Your task to perform on an android device: delete browsing data in the chrome app Image 0: 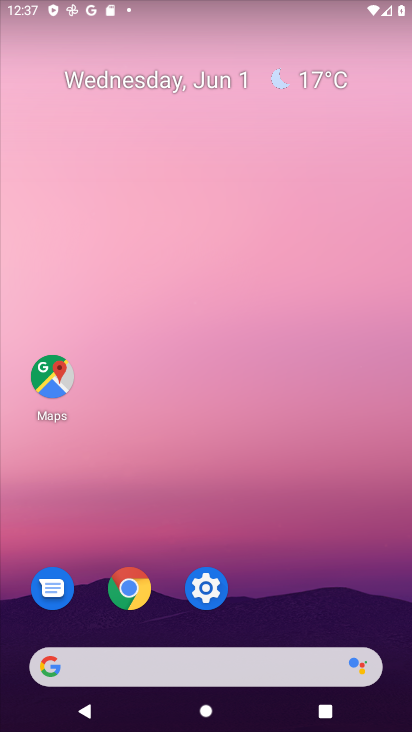
Step 0: drag from (233, 695) to (271, 115)
Your task to perform on an android device: delete browsing data in the chrome app Image 1: 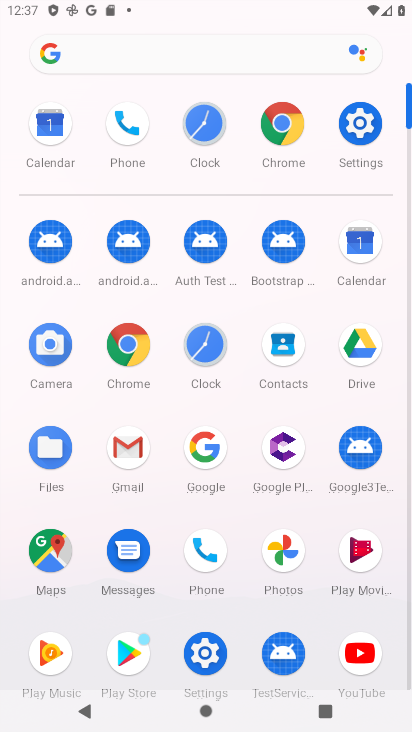
Step 1: click (127, 337)
Your task to perform on an android device: delete browsing data in the chrome app Image 2: 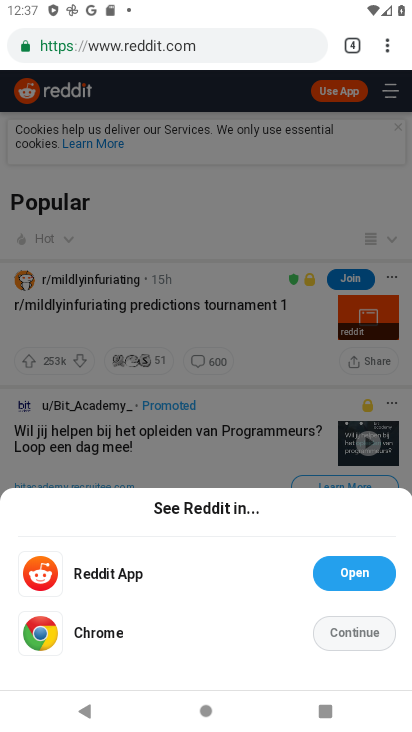
Step 2: click (390, 43)
Your task to perform on an android device: delete browsing data in the chrome app Image 3: 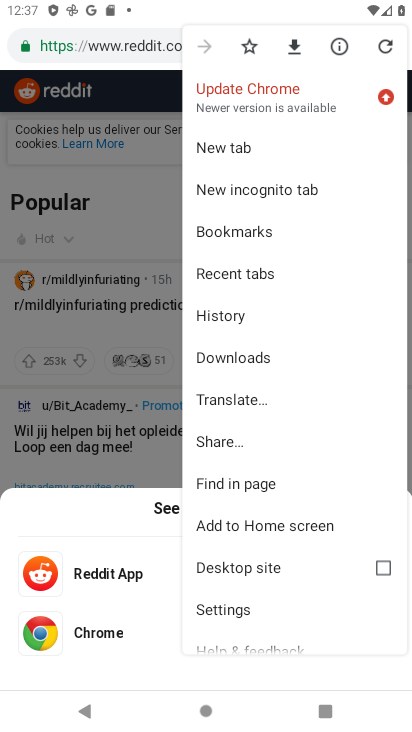
Step 3: click (238, 610)
Your task to perform on an android device: delete browsing data in the chrome app Image 4: 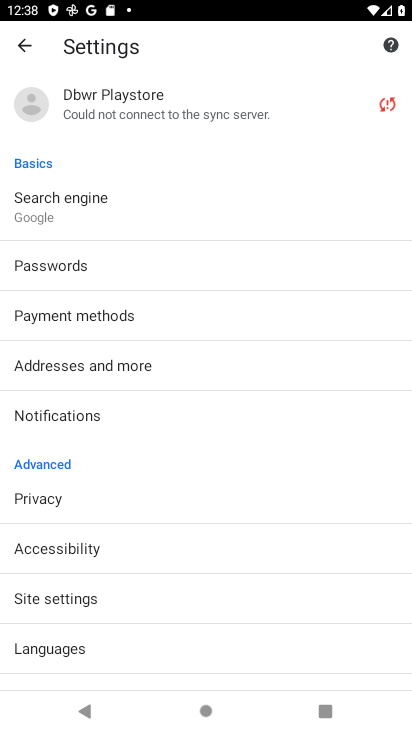
Step 4: click (74, 494)
Your task to perform on an android device: delete browsing data in the chrome app Image 5: 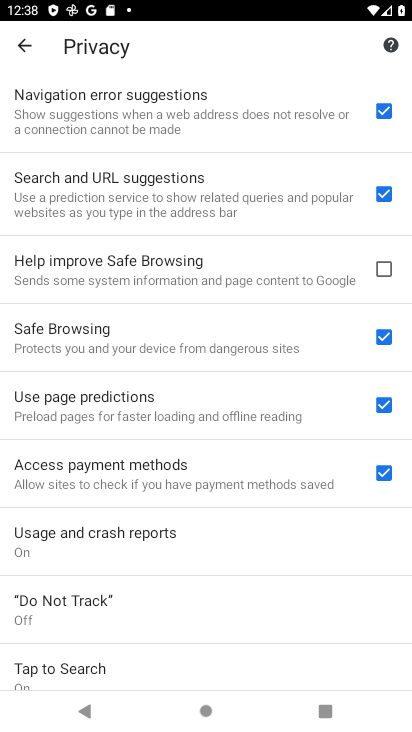
Step 5: drag from (185, 610) to (184, 210)
Your task to perform on an android device: delete browsing data in the chrome app Image 6: 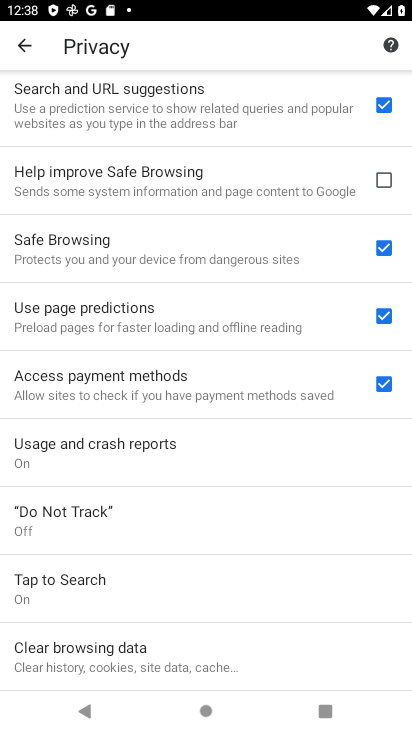
Step 6: click (81, 657)
Your task to perform on an android device: delete browsing data in the chrome app Image 7: 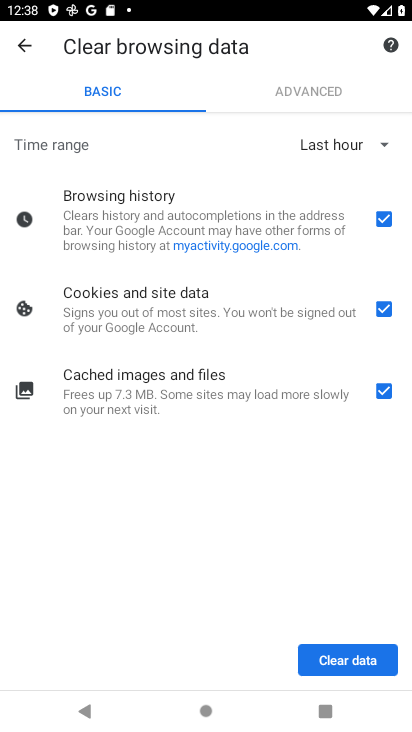
Step 7: click (326, 663)
Your task to perform on an android device: delete browsing data in the chrome app Image 8: 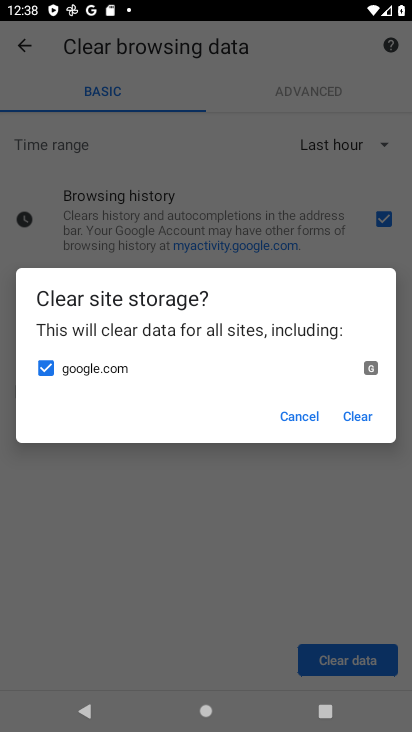
Step 8: task complete